Your task to perform on an android device: Go to sound settings Image 0: 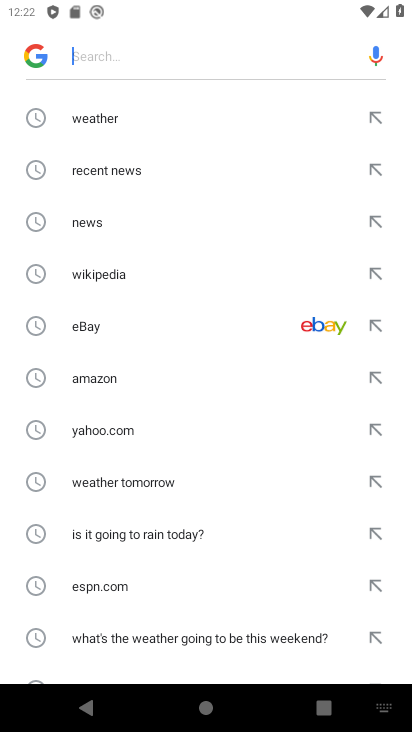
Step 0: press home button
Your task to perform on an android device: Go to sound settings Image 1: 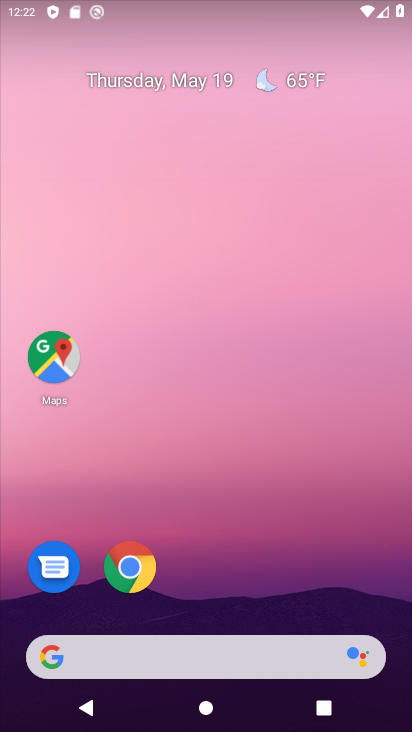
Step 1: drag from (238, 590) to (191, 91)
Your task to perform on an android device: Go to sound settings Image 2: 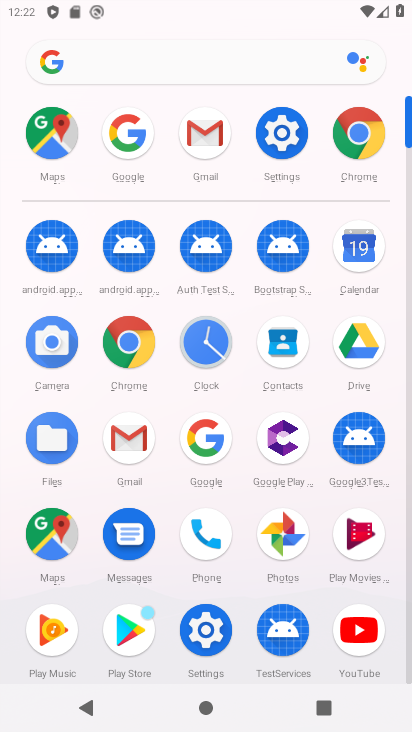
Step 2: click (277, 127)
Your task to perform on an android device: Go to sound settings Image 3: 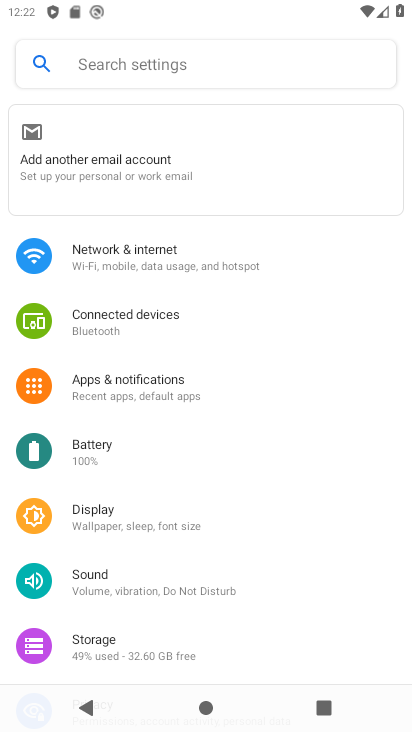
Step 3: click (138, 578)
Your task to perform on an android device: Go to sound settings Image 4: 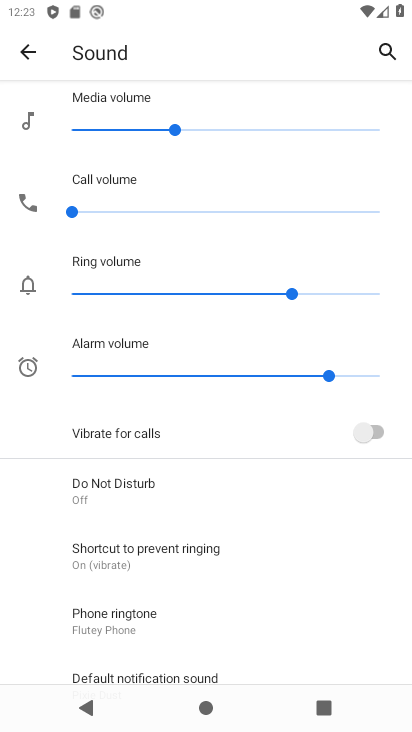
Step 4: task complete